Your task to perform on an android device: See recent photos Image 0: 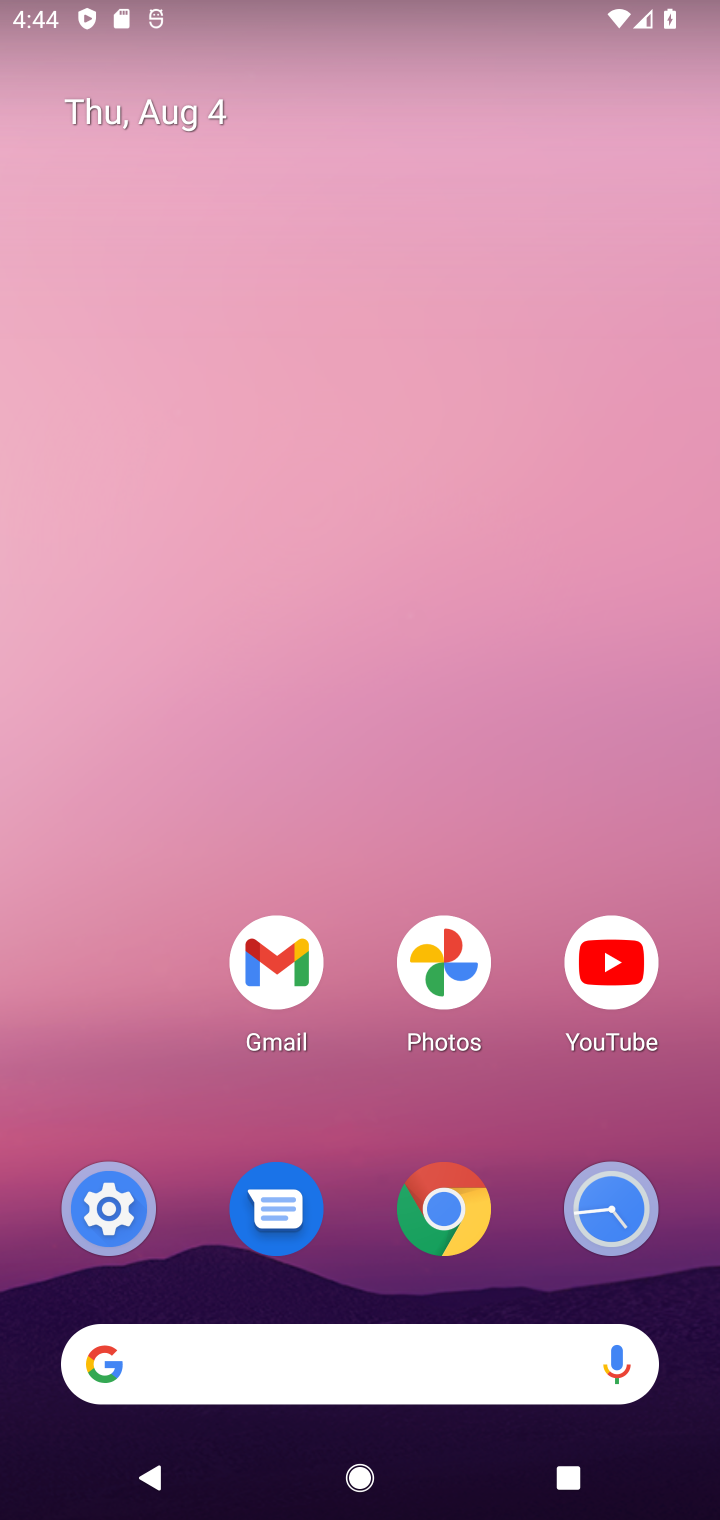
Step 0: click (372, 277)
Your task to perform on an android device: See recent photos Image 1: 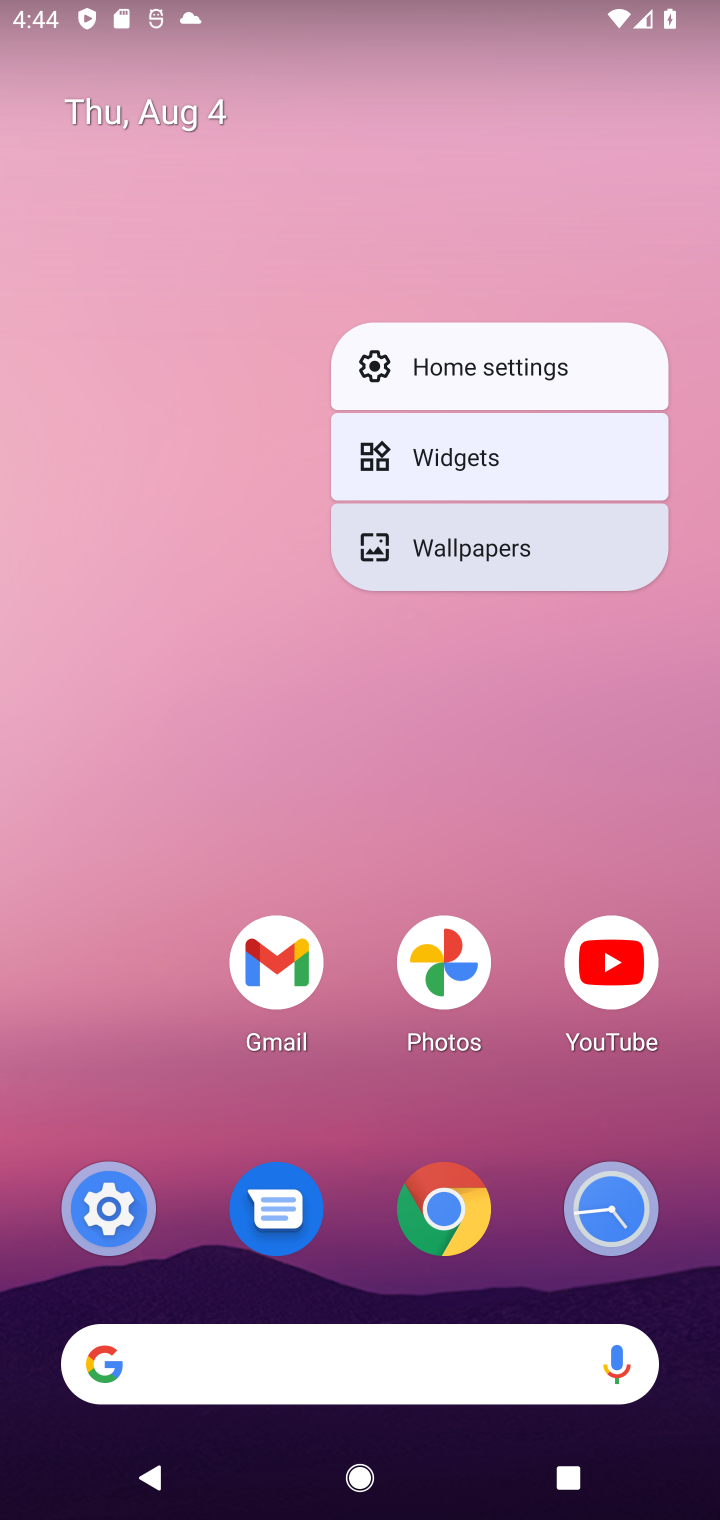
Step 1: click (424, 999)
Your task to perform on an android device: See recent photos Image 2: 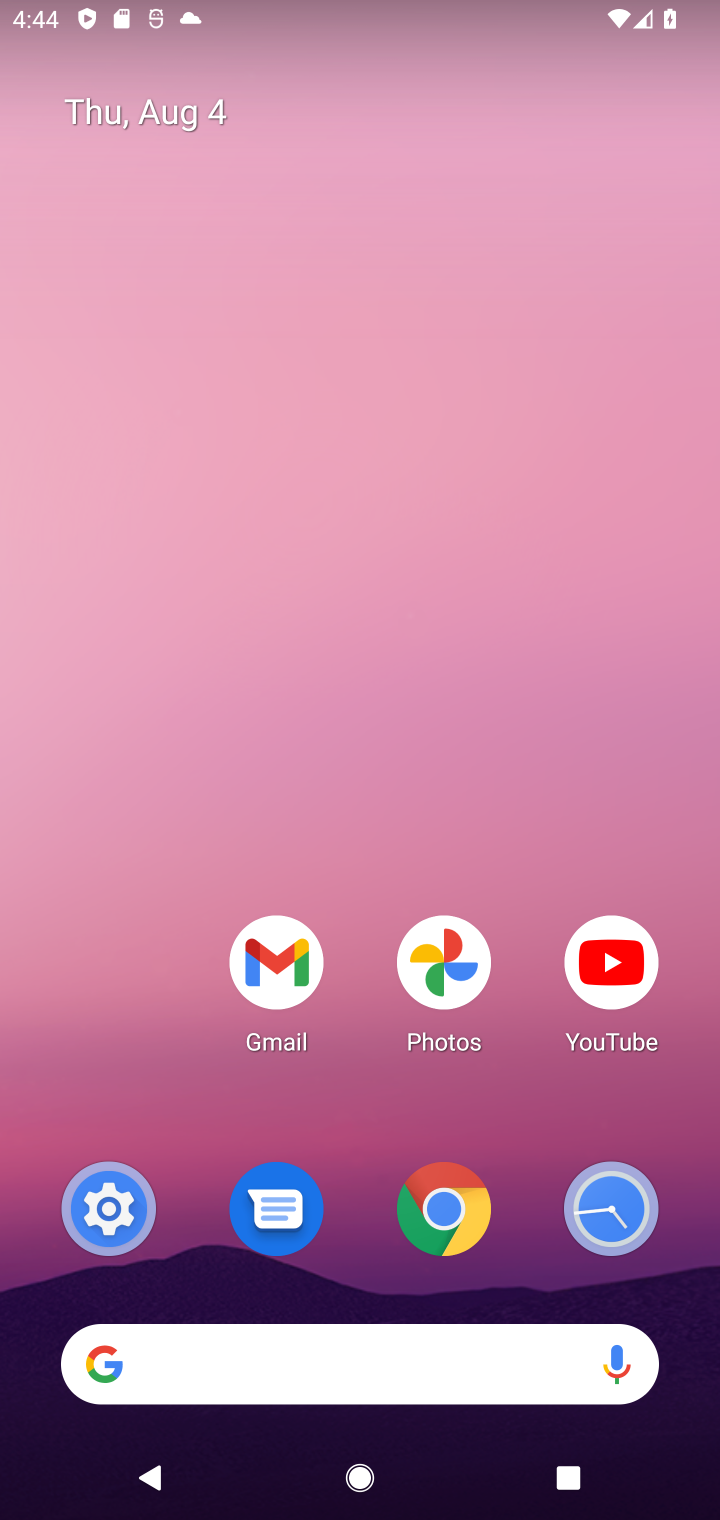
Step 2: click (440, 990)
Your task to perform on an android device: See recent photos Image 3: 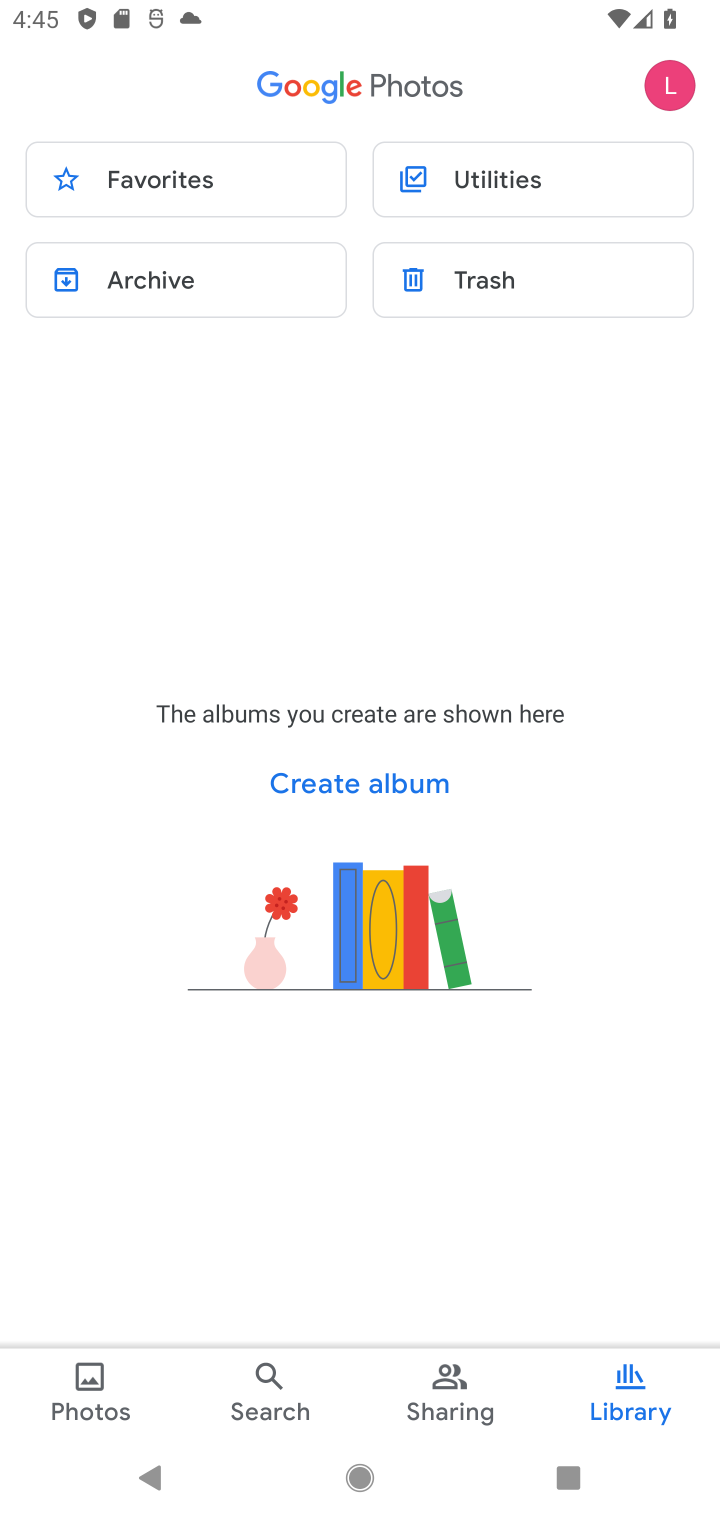
Step 3: click (77, 1404)
Your task to perform on an android device: See recent photos Image 4: 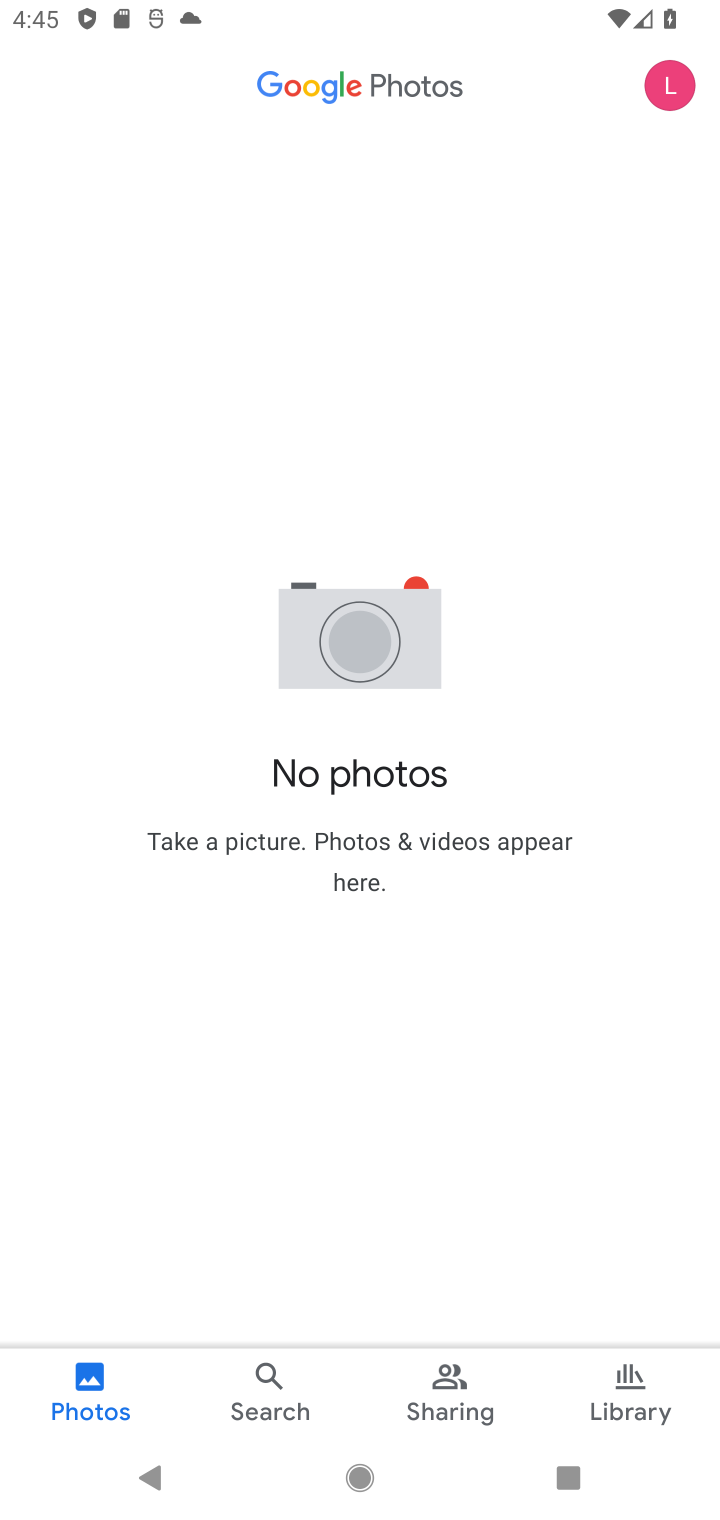
Step 4: task complete